Your task to perform on an android device: star an email in the gmail app Image 0: 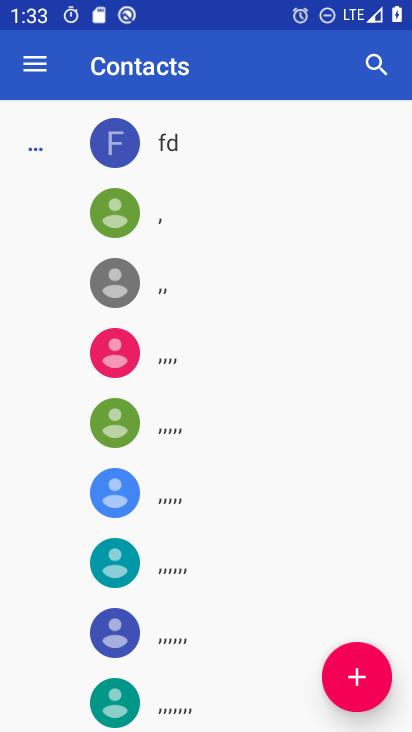
Step 0: press home button
Your task to perform on an android device: star an email in the gmail app Image 1: 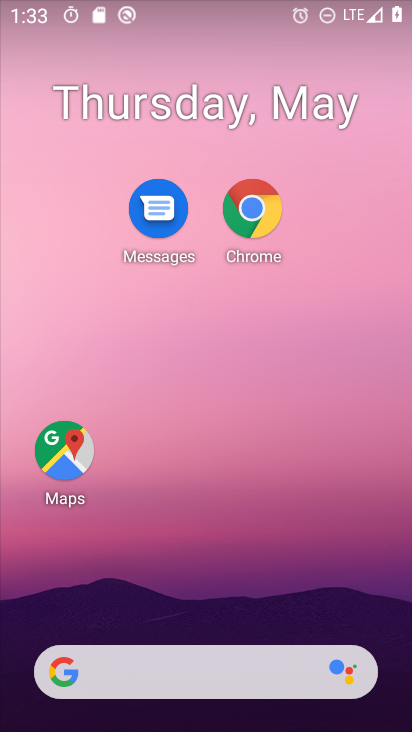
Step 1: drag from (210, 584) to (200, 32)
Your task to perform on an android device: star an email in the gmail app Image 2: 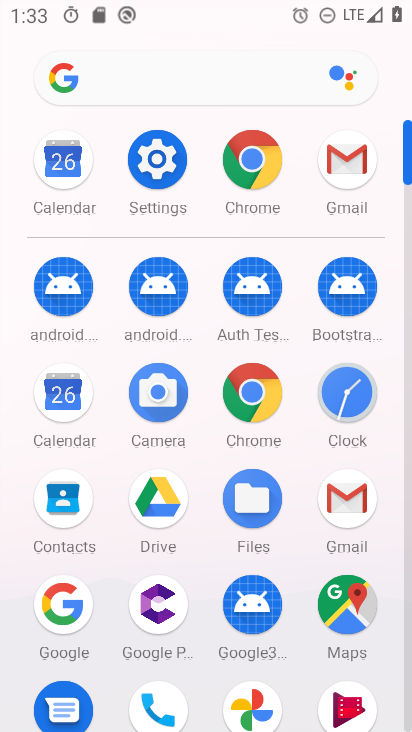
Step 2: click (346, 173)
Your task to perform on an android device: star an email in the gmail app Image 3: 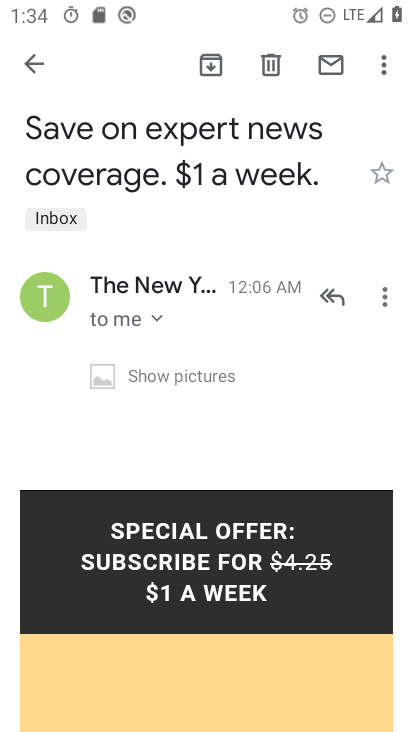
Step 3: click (383, 177)
Your task to perform on an android device: star an email in the gmail app Image 4: 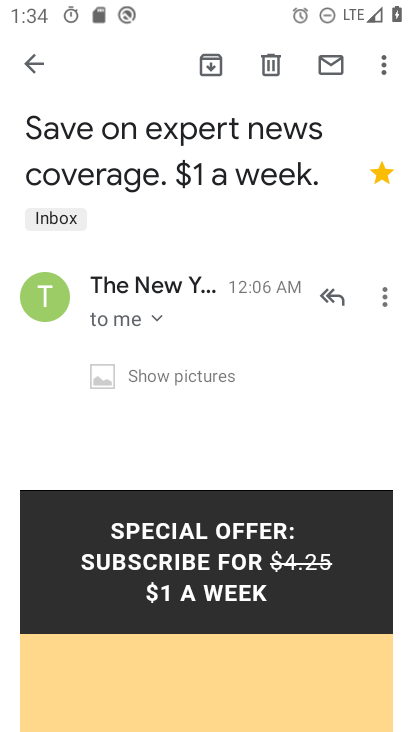
Step 4: click (378, 171)
Your task to perform on an android device: star an email in the gmail app Image 5: 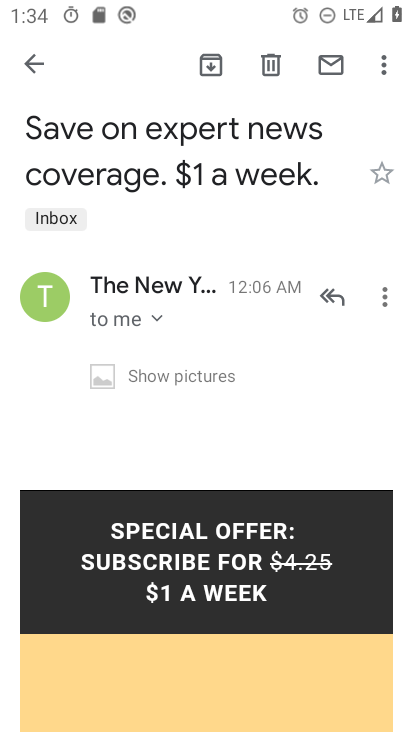
Step 5: click (383, 180)
Your task to perform on an android device: star an email in the gmail app Image 6: 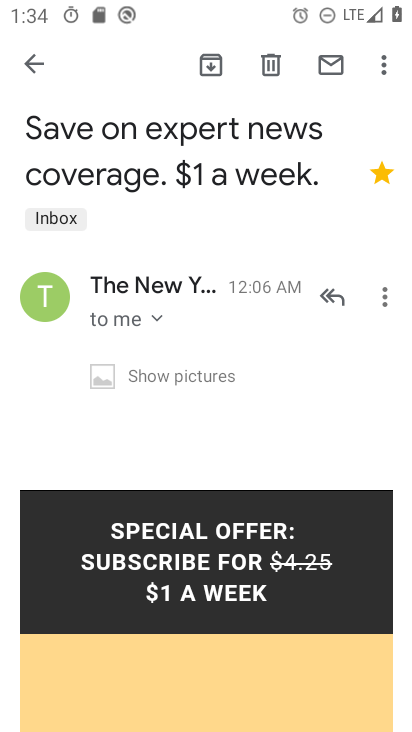
Step 6: task complete